Your task to perform on an android device: check out phone information Image 0: 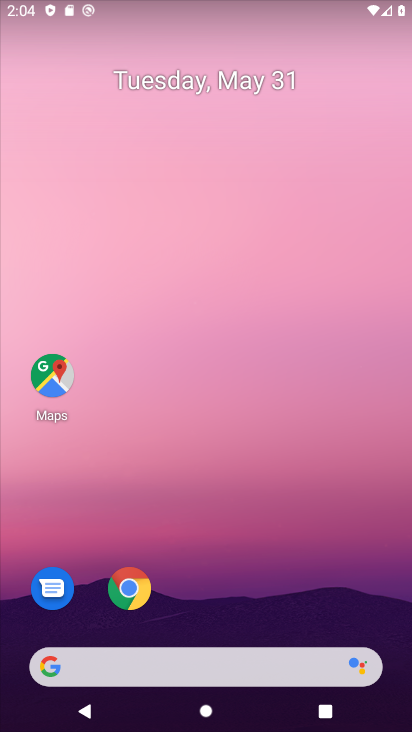
Step 0: drag from (147, 725) to (281, 62)
Your task to perform on an android device: check out phone information Image 1: 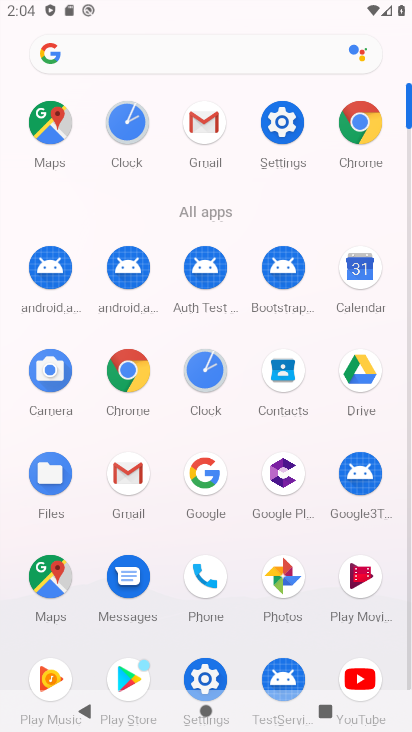
Step 1: click (283, 133)
Your task to perform on an android device: check out phone information Image 2: 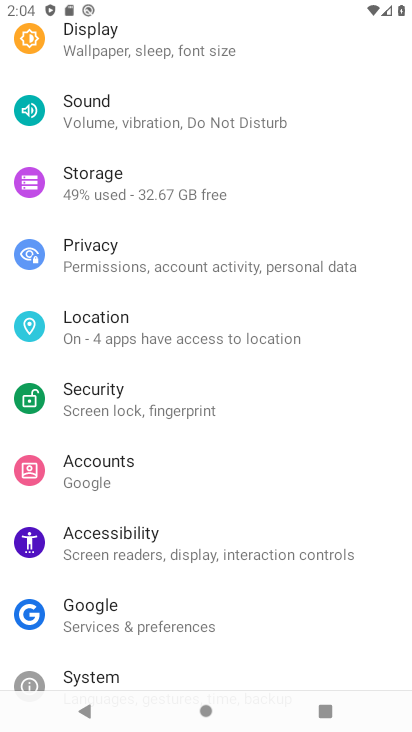
Step 2: drag from (154, 659) to (243, 248)
Your task to perform on an android device: check out phone information Image 3: 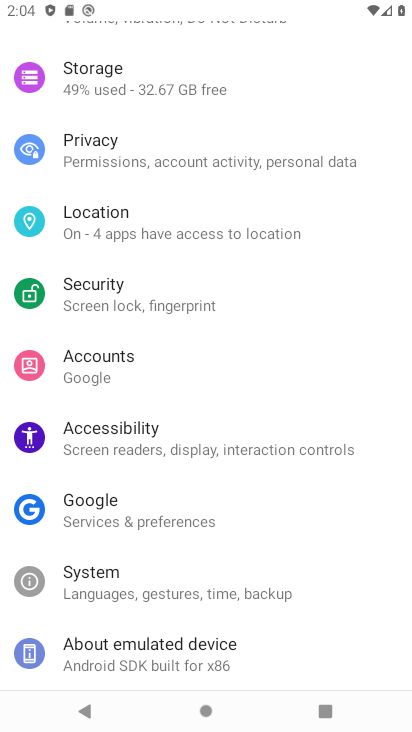
Step 3: click (135, 659)
Your task to perform on an android device: check out phone information Image 4: 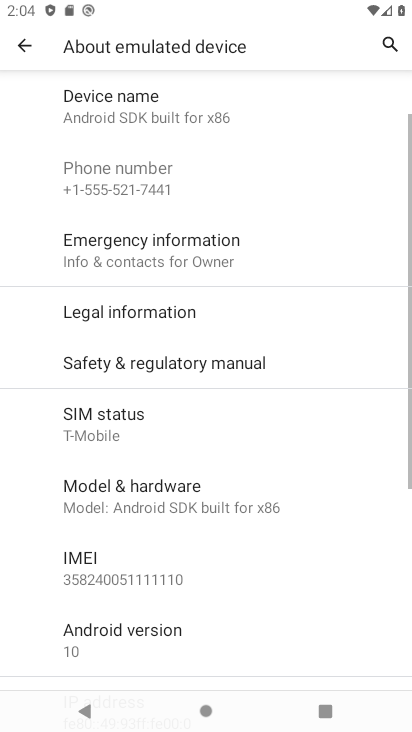
Step 4: task complete